Your task to perform on an android device: search for starred emails in the gmail app Image 0: 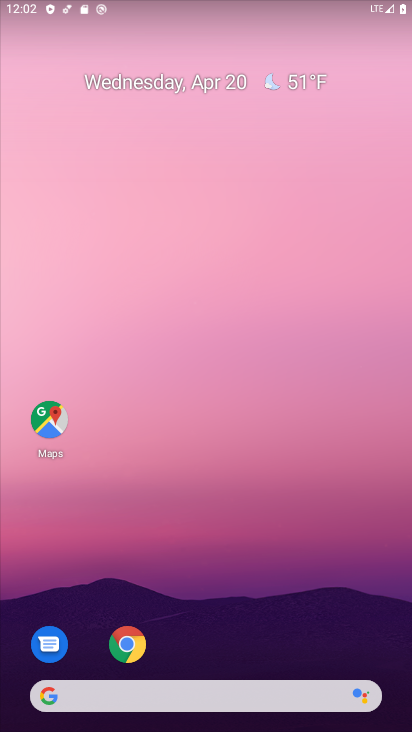
Step 0: drag from (203, 713) to (179, 116)
Your task to perform on an android device: search for starred emails in the gmail app Image 1: 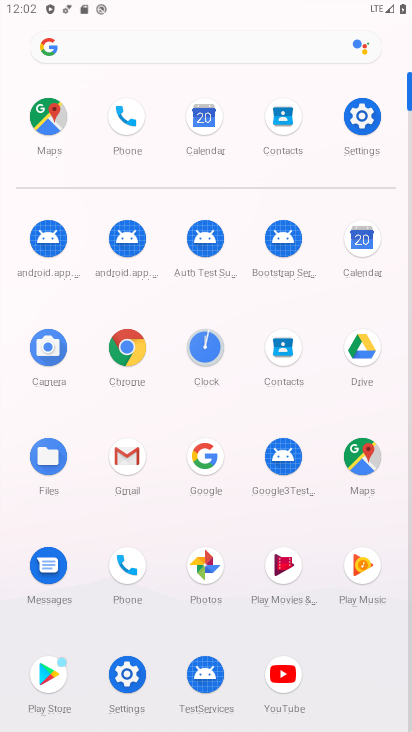
Step 1: click (123, 453)
Your task to perform on an android device: search for starred emails in the gmail app Image 2: 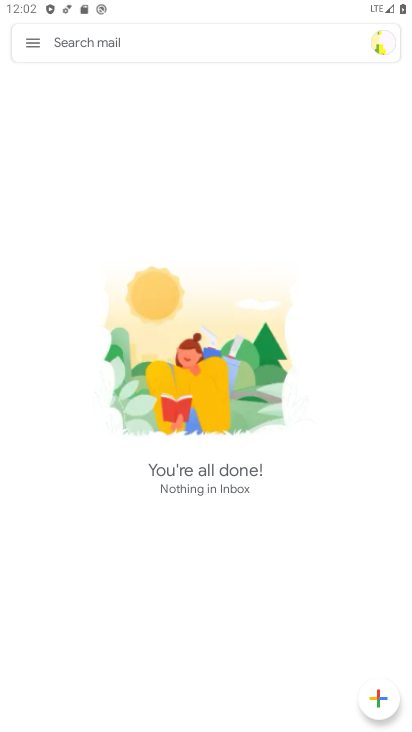
Step 2: click (35, 43)
Your task to perform on an android device: search for starred emails in the gmail app Image 3: 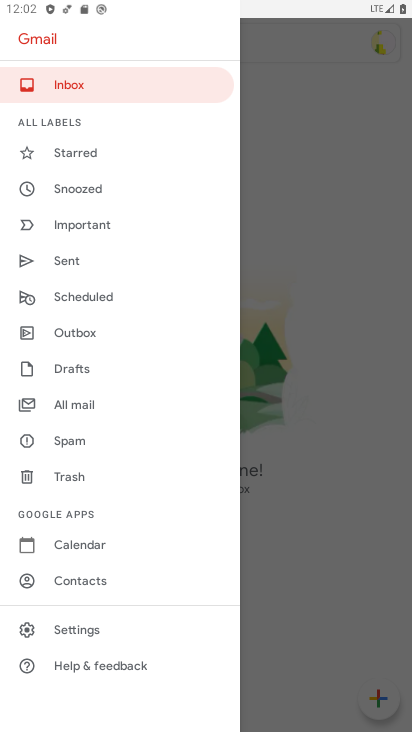
Step 3: click (84, 151)
Your task to perform on an android device: search for starred emails in the gmail app Image 4: 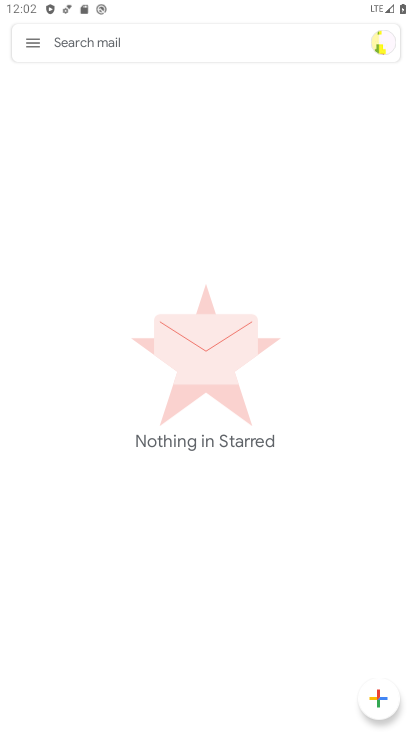
Step 4: task complete